Your task to perform on an android device: turn off notifications settings in the gmail app Image 0: 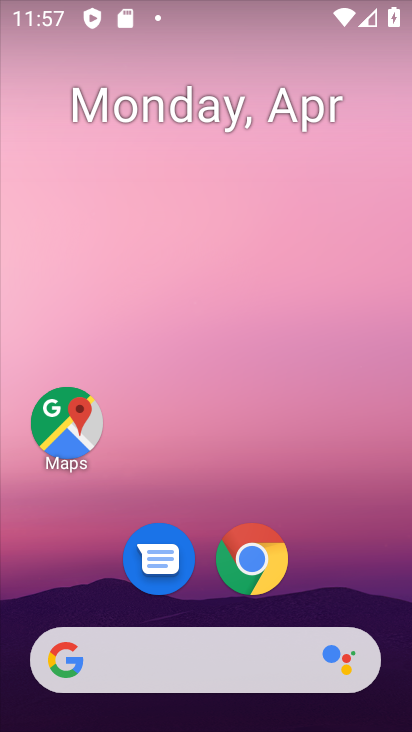
Step 0: drag from (374, 576) to (246, 153)
Your task to perform on an android device: turn off notifications settings in the gmail app Image 1: 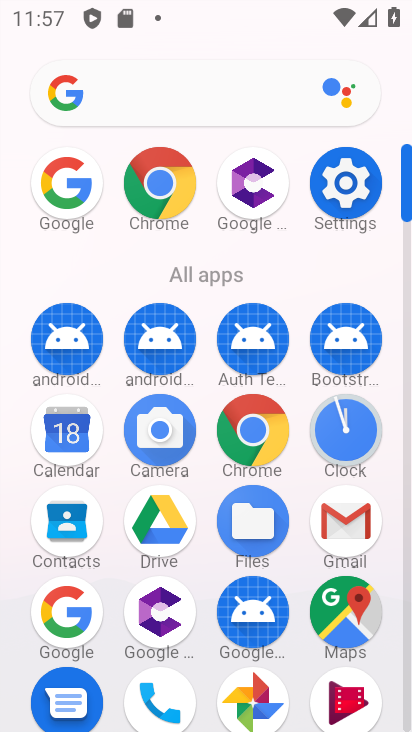
Step 1: click (365, 522)
Your task to perform on an android device: turn off notifications settings in the gmail app Image 2: 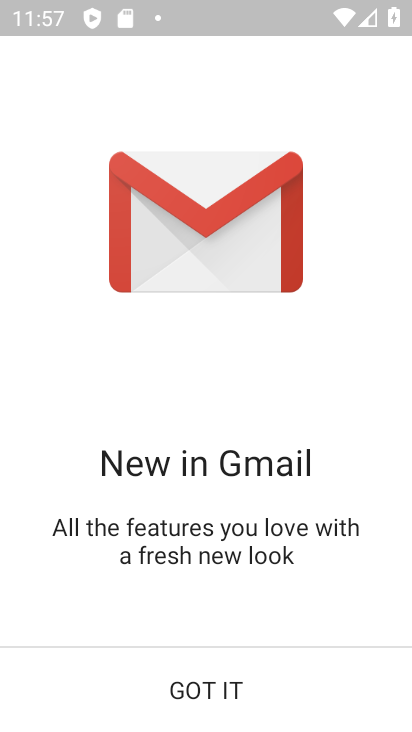
Step 2: click (218, 700)
Your task to perform on an android device: turn off notifications settings in the gmail app Image 3: 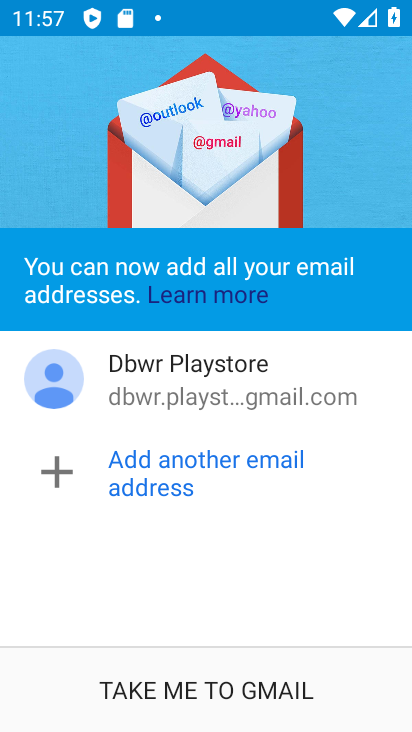
Step 3: click (218, 700)
Your task to perform on an android device: turn off notifications settings in the gmail app Image 4: 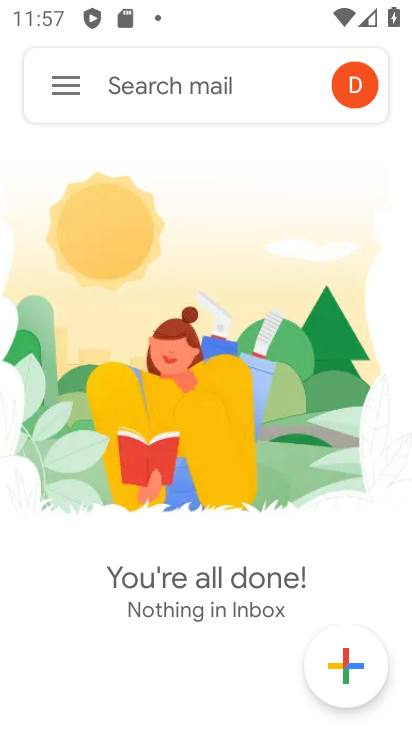
Step 4: click (68, 82)
Your task to perform on an android device: turn off notifications settings in the gmail app Image 5: 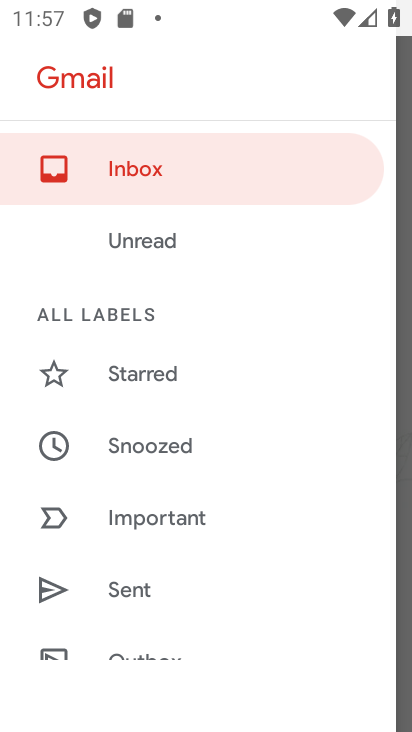
Step 5: drag from (281, 635) to (215, 141)
Your task to perform on an android device: turn off notifications settings in the gmail app Image 6: 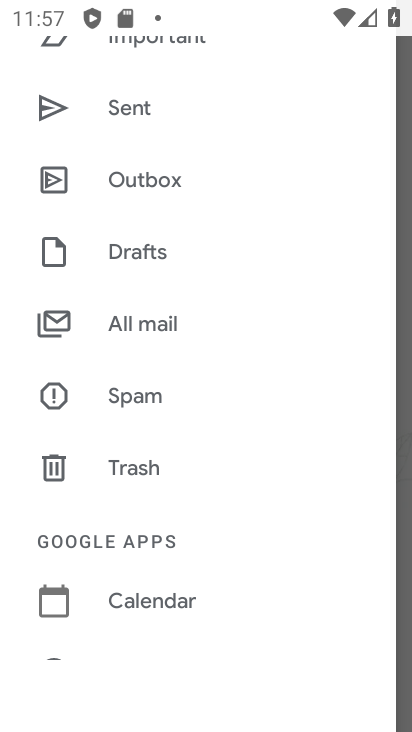
Step 6: drag from (292, 612) to (238, 234)
Your task to perform on an android device: turn off notifications settings in the gmail app Image 7: 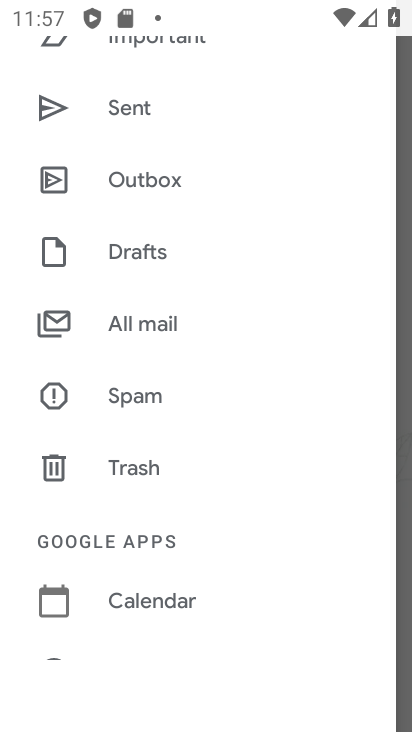
Step 7: drag from (300, 574) to (230, 213)
Your task to perform on an android device: turn off notifications settings in the gmail app Image 8: 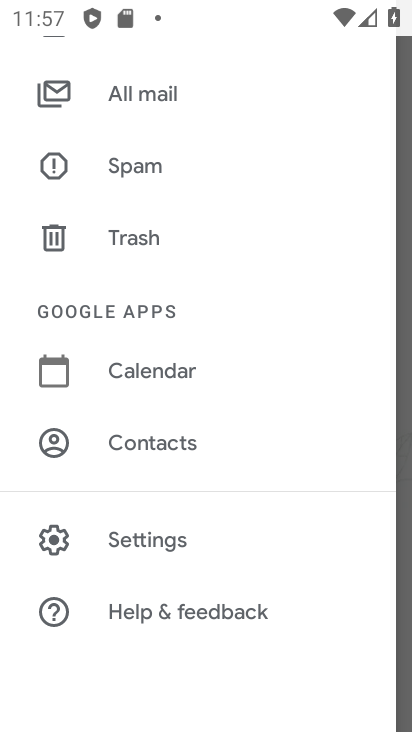
Step 8: click (264, 534)
Your task to perform on an android device: turn off notifications settings in the gmail app Image 9: 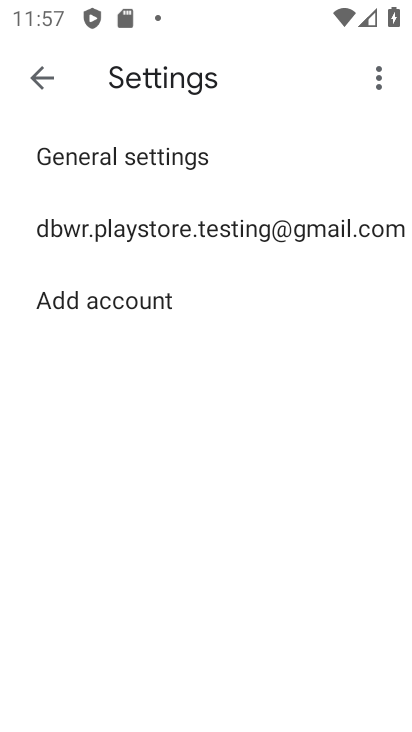
Step 9: click (322, 234)
Your task to perform on an android device: turn off notifications settings in the gmail app Image 10: 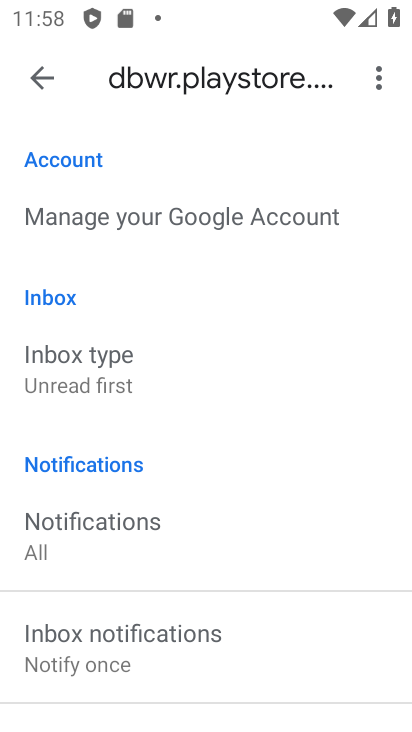
Step 10: drag from (302, 644) to (239, 266)
Your task to perform on an android device: turn off notifications settings in the gmail app Image 11: 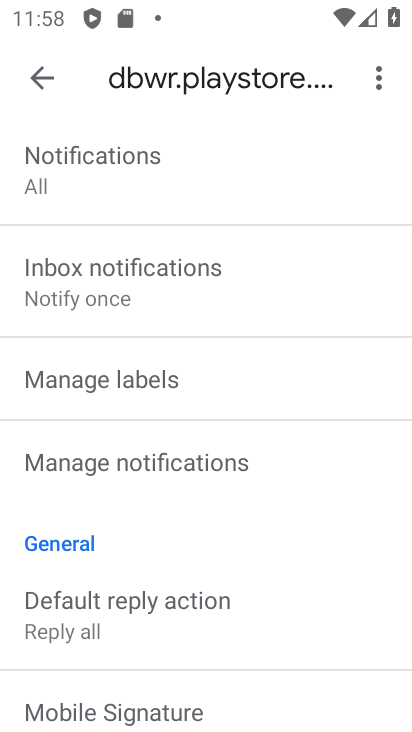
Step 11: drag from (306, 547) to (273, 270)
Your task to perform on an android device: turn off notifications settings in the gmail app Image 12: 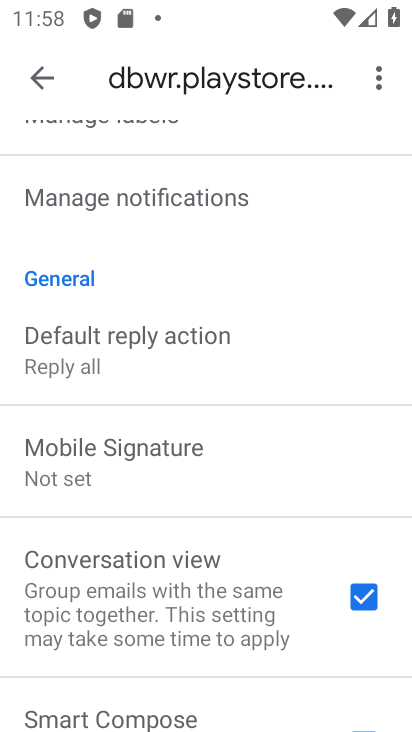
Step 12: click (264, 217)
Your task to perform on an android device: turn off notifications settings in the gmail app Image 13: 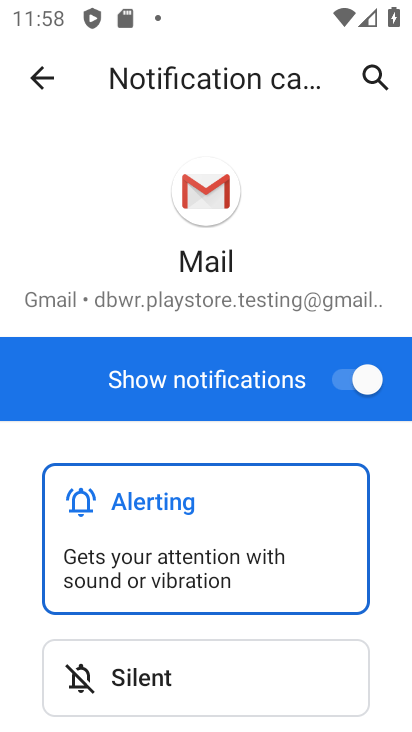
Step 13: drag from (401, 663) to (338, 265)
Your task to perform on an android device: turn off notifications settings in the gmail app Image 14: 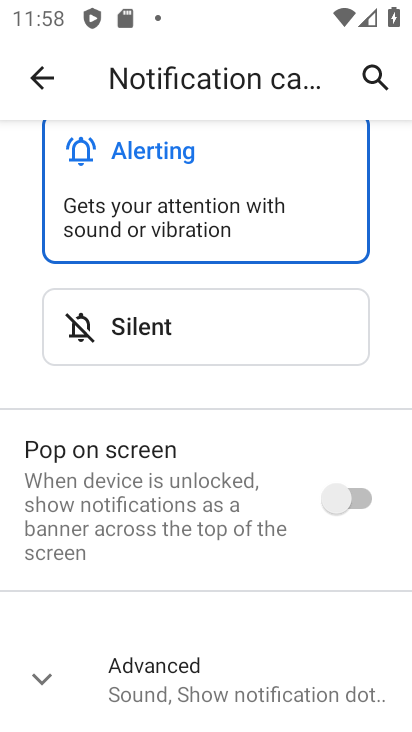
Step 14: drag from (399, 210) to (394, 370)
Your task to perform on an android device: turn off notifications settings in the gmail app Image 15: 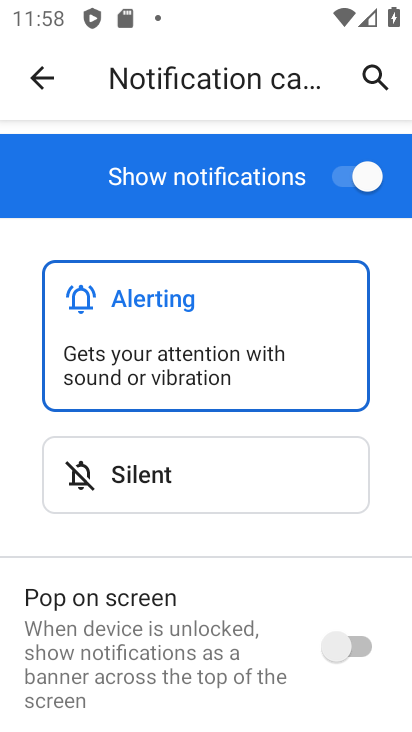
Step 15: click (356, 181)
Your task to perform on an android device: turn off notifications settings in the gmail app Image 16: 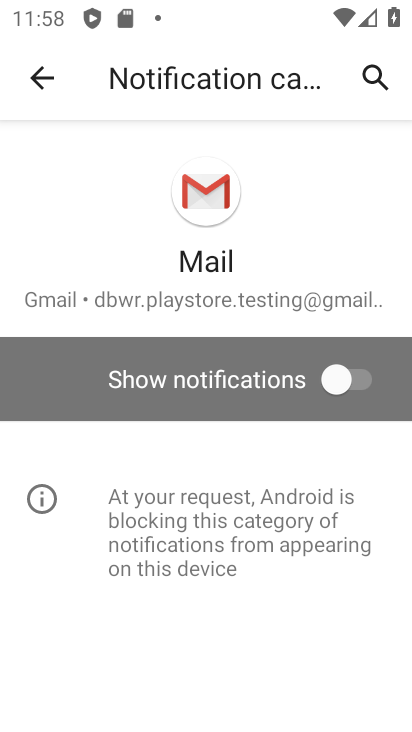
Step 16: task complete